Your task to perform on an android device: Go to Google Image 0: 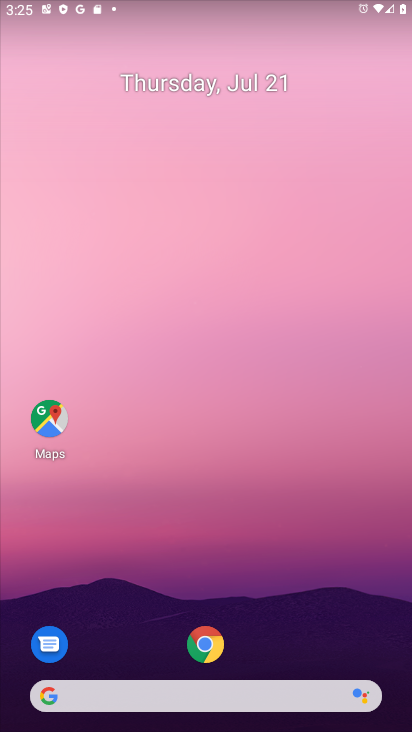
Step 0: press home button
Your task to perform on an android device: Go to Google Image 1: 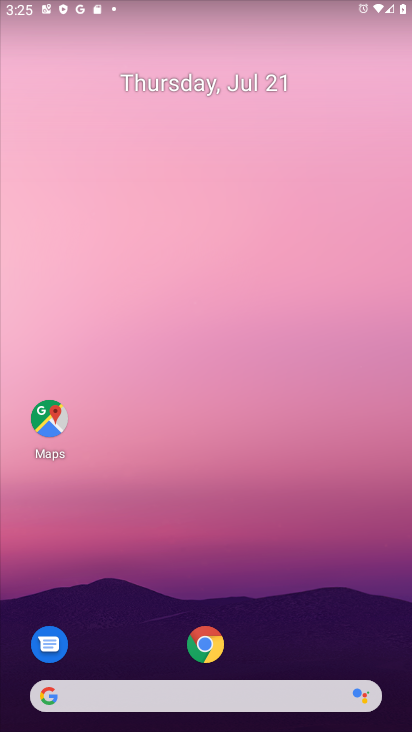
Step 1: drag from (256, 616) to (256, 122)
Your task to perform on an android device: Go to Google Image 2: 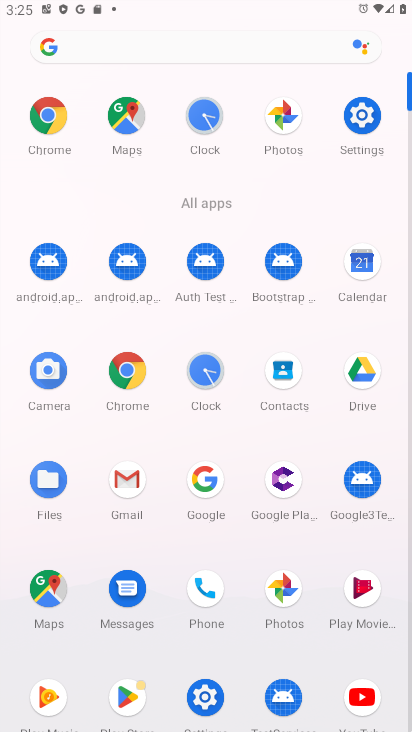
Step 2: click (201, 486)
Your task to perform on an android device: Go to Google Image 3: 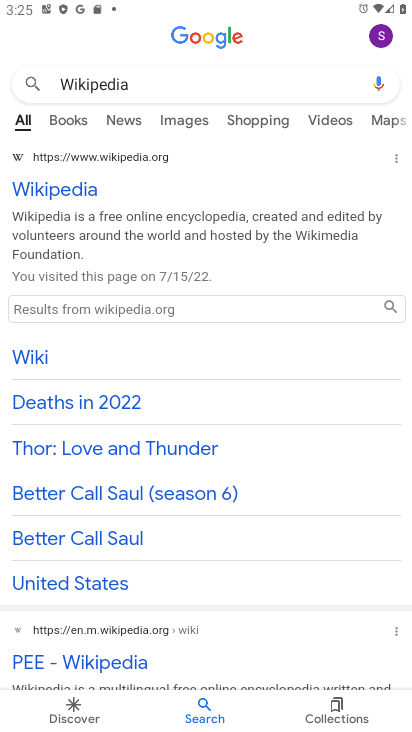
Step 3: click (193, 37)
Your task to perform on an android device: Go to Google Image 4: 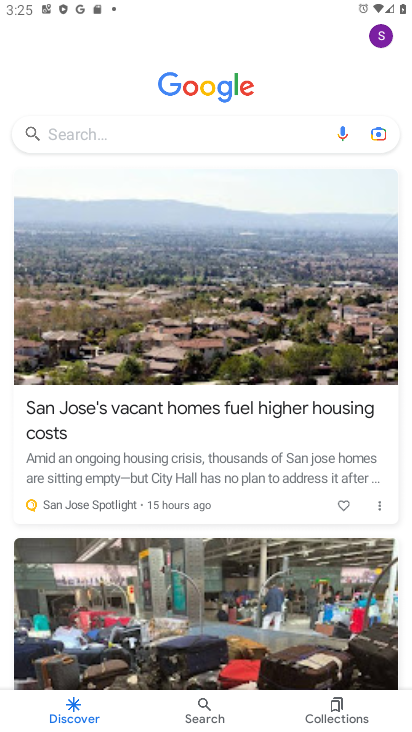
Step 4: task complete